Your task to perform on an android device: Is it going to rain this weekend? Image 0: 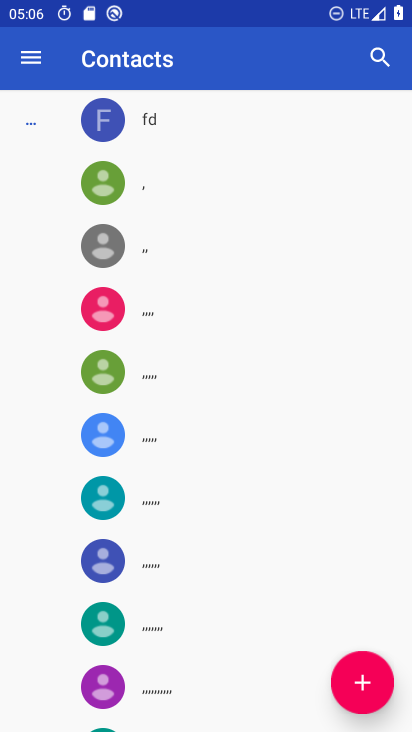
Step 0: press back button
Your task to perform on an android device: Is it going to rain this weekend? Image 1: 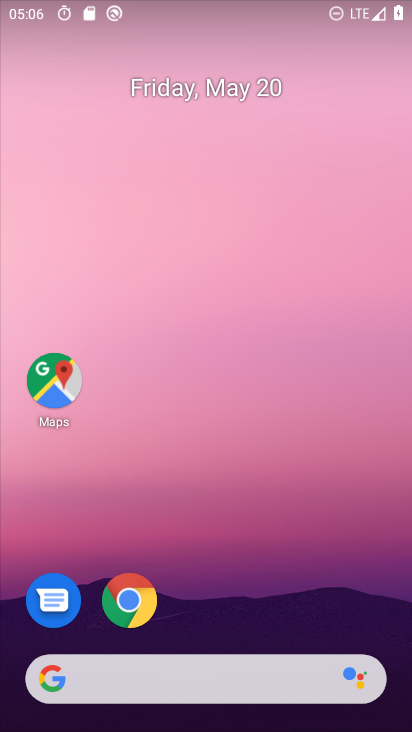
Step 1: drag from (206, 579) to (307, 25)
Your task to perform on an android device: Is it going to rain this weekend? Image 2: 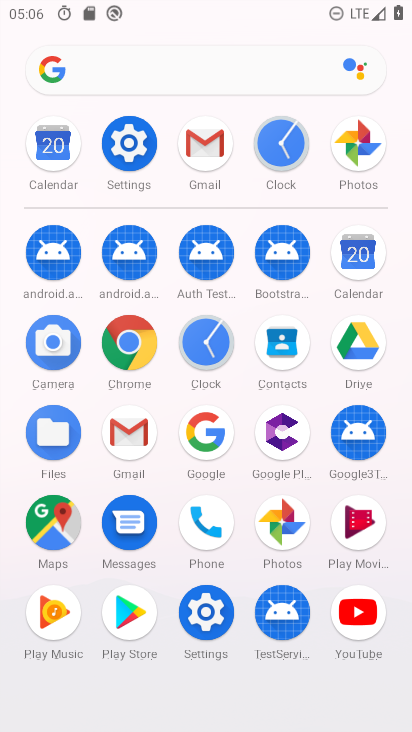
Step 2: click (354, 257)
Your task to perform on an android device: Is it going to rain this weekend? Image 3: 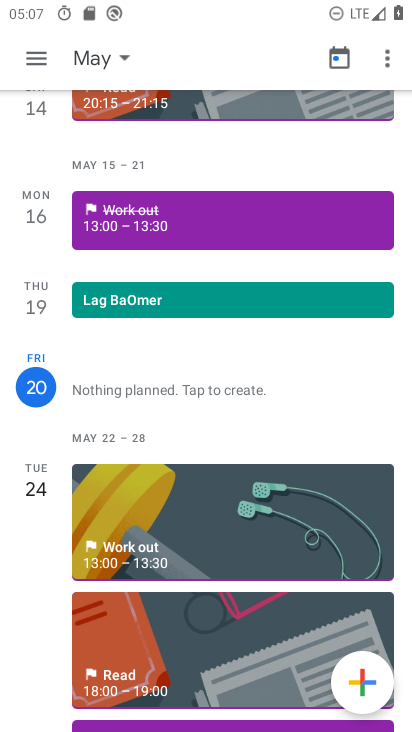
Step 3: press back button
Your task to perform on an android device: Is it going to rain this weekend? Image 4: 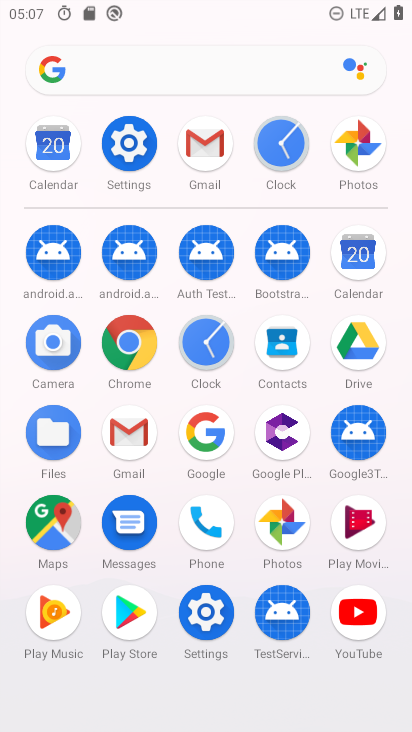
Step 4: click (148, 71)
Your task to perform on an android device: Is it going to rain this weekend? Image 5: 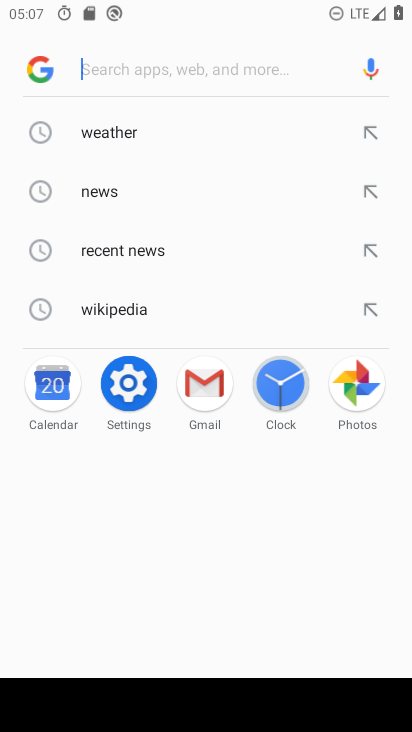
Step 5: click (109, 135)
Your task to perform on an android device: Is it going to rain this weekend? Image 6: 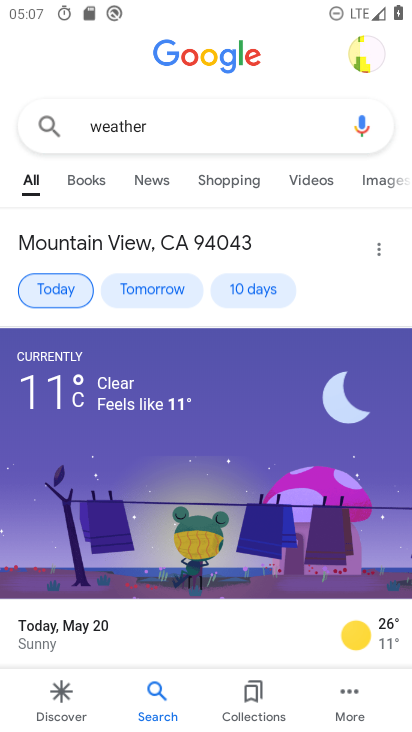
Step 6: click (248, 291)
Your task to perform on an android device: Is it going to rain this weekend? Image 7: 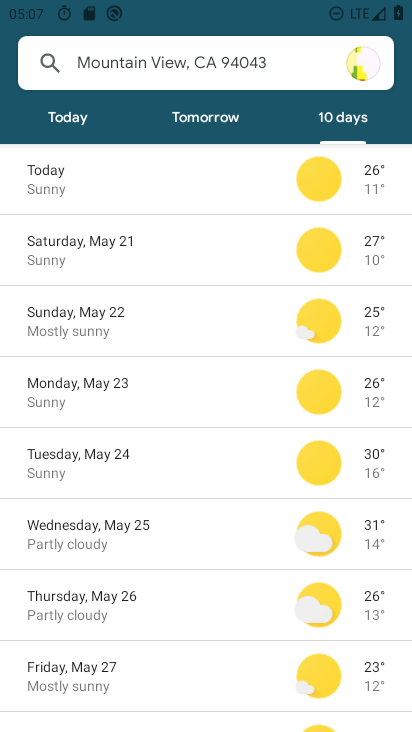
Step 7: task complete